Your task to perform on an android device: Open the calendar app, open the side menu, and click the "Day" option Image 0: 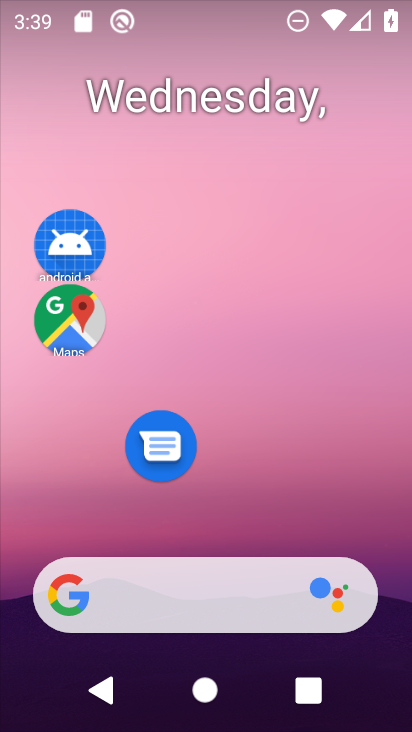
Step 0: drag from (344, 521) to (373, 179)
Your task to perform on an android device: Open the calendar app, open the side menu, and click the "Day" option Image 1: 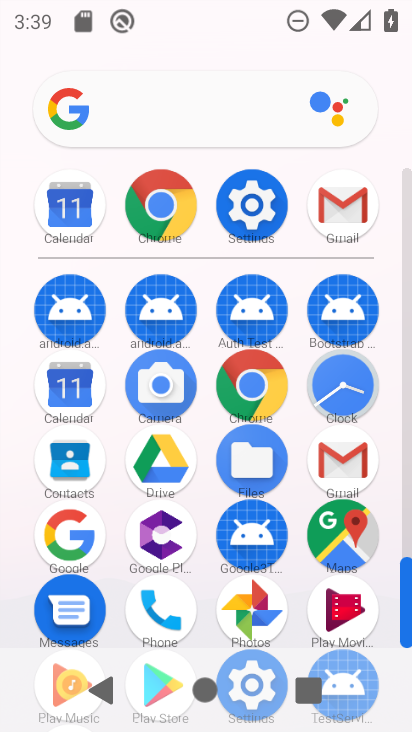
Step 1: click (62, 396)
Your task to perform on an android device: Open the calendar app, open the side menu, and click the "Day" option Image 2: 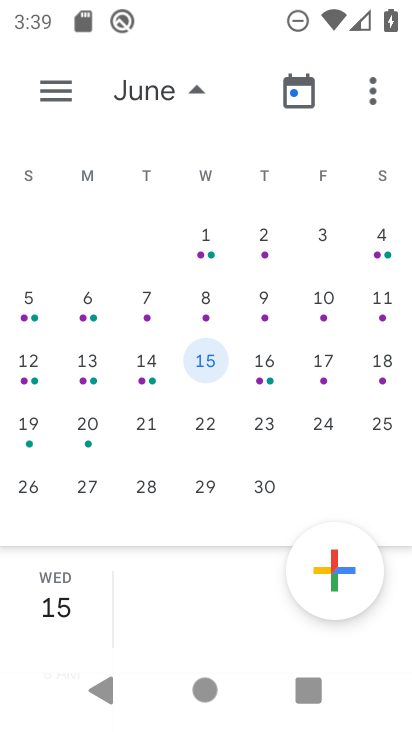
Step 2: click (40, 73)
Your task to perform on an android device: Open the calendar app, open the side menu, and click the "Day" option Image 3: 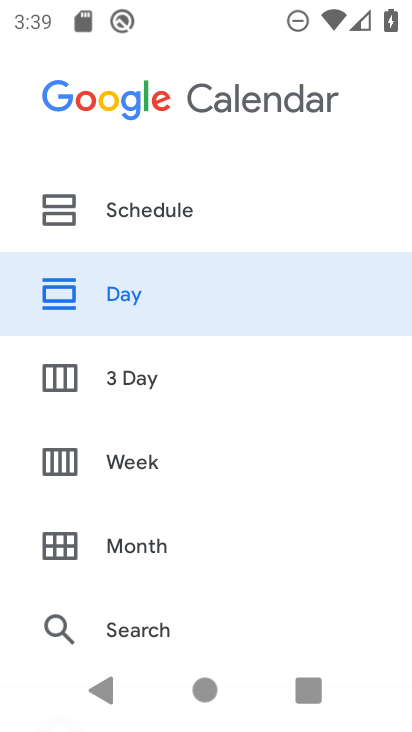
Step 3: click (82, 288)
Your task to perform on an android device: Open the calendar app, open the side menu, and click the "Day" option Image 4: 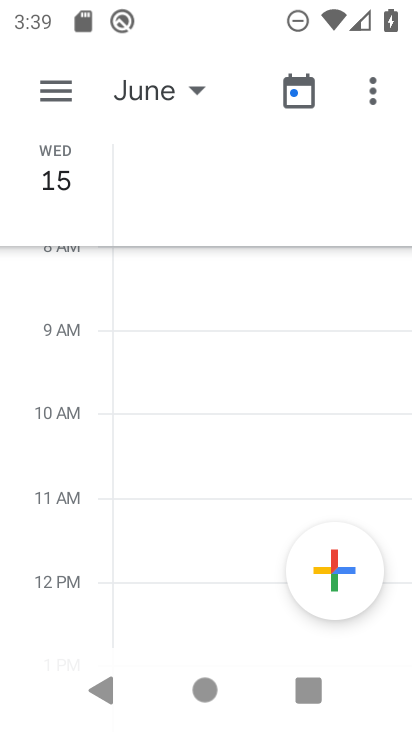
Step 4: task complete